Your task to perform on an android device: What's the weather today? Image 0: 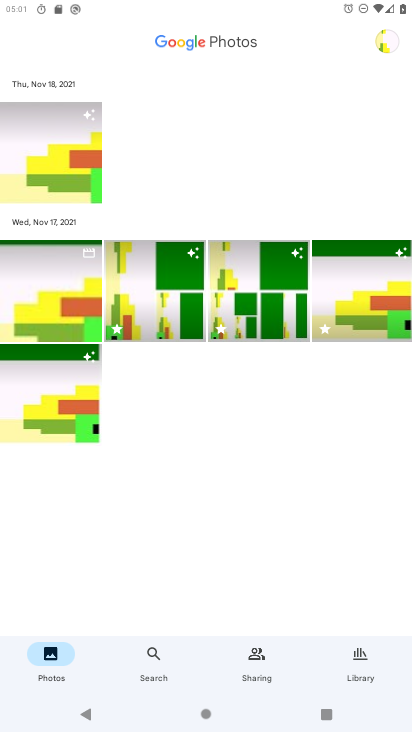
Step 0: press home button
Your task to perform on an android device: What's the weather today? Image 1: 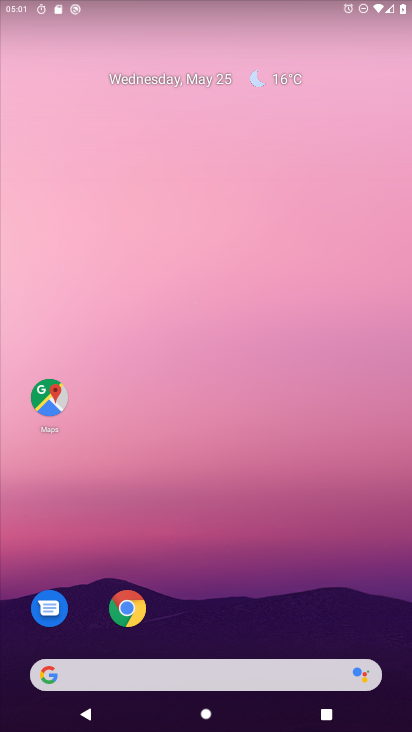
Step 1: drag from (227, 557) to (216, 157)
Your task to perform on an android device: What's the weather today? Image 2: 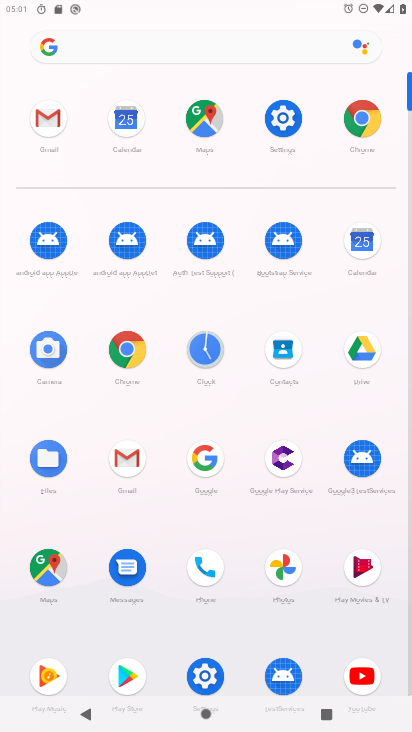
Step 2: press home button
Your task to perform on an android device: What's the weather today? Image 3: 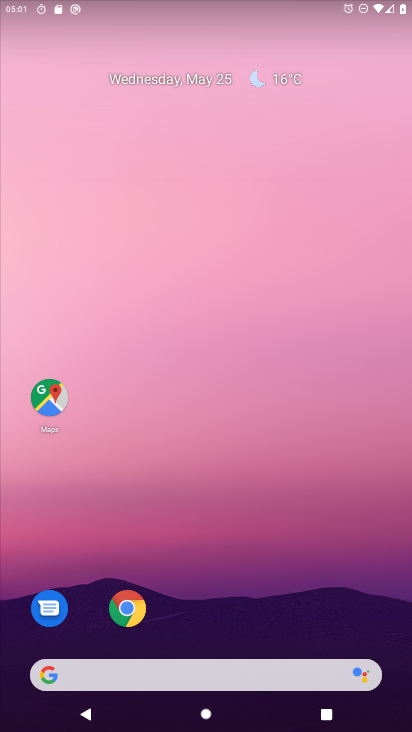
Step 3: click (295, 77)
Your task to perform on an android device: What's the weather today? Image 4: 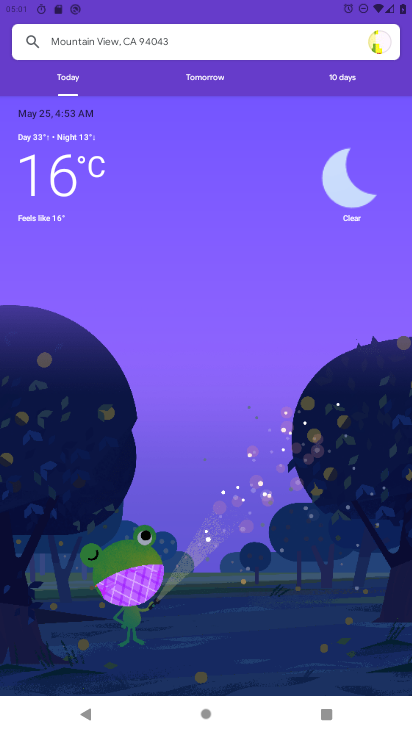
Step 4: task complete